Your task to perform on an android device: turn on improve location accuracy Image 0: 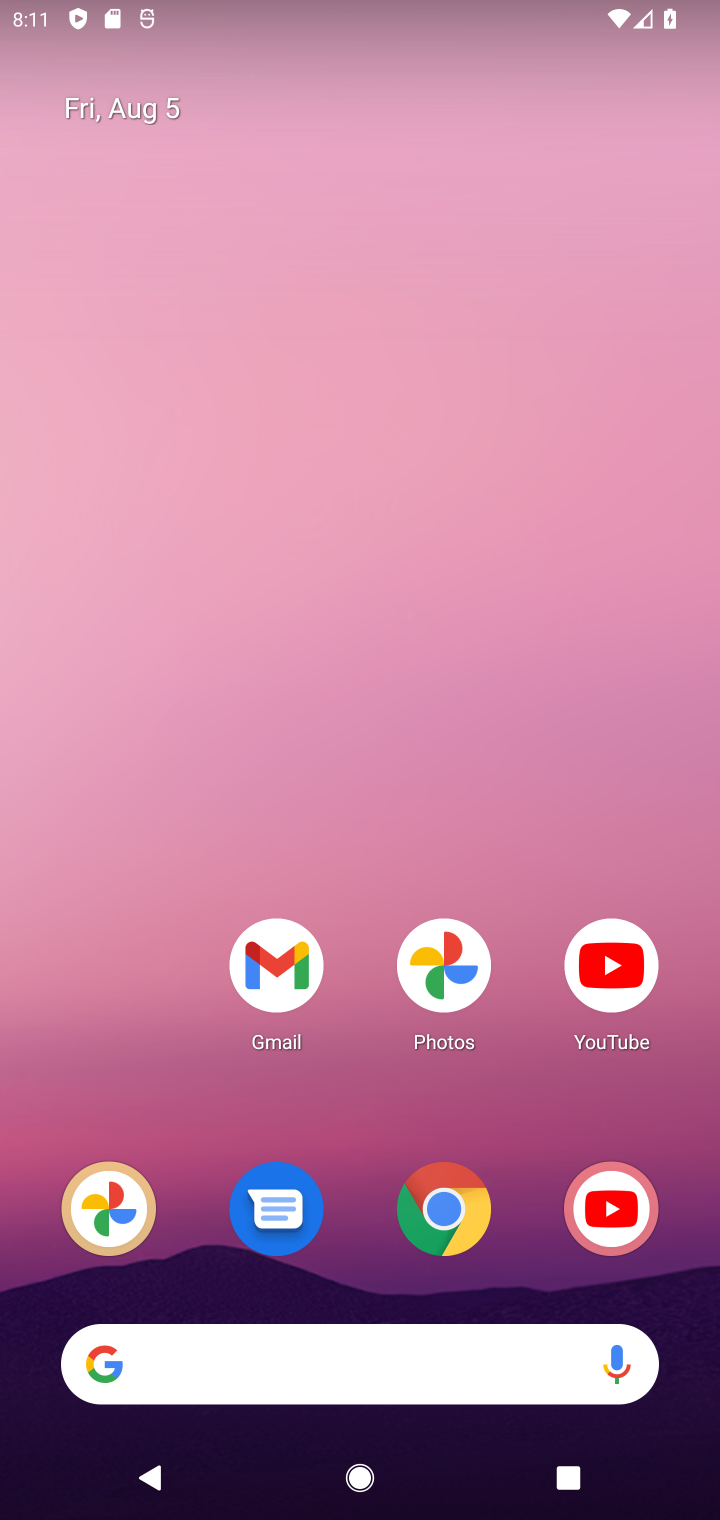
Step 0: drag from (360, 1372) to (520, 459)
Your task to perform on an android device: turn on improve location accuracy Image 1: 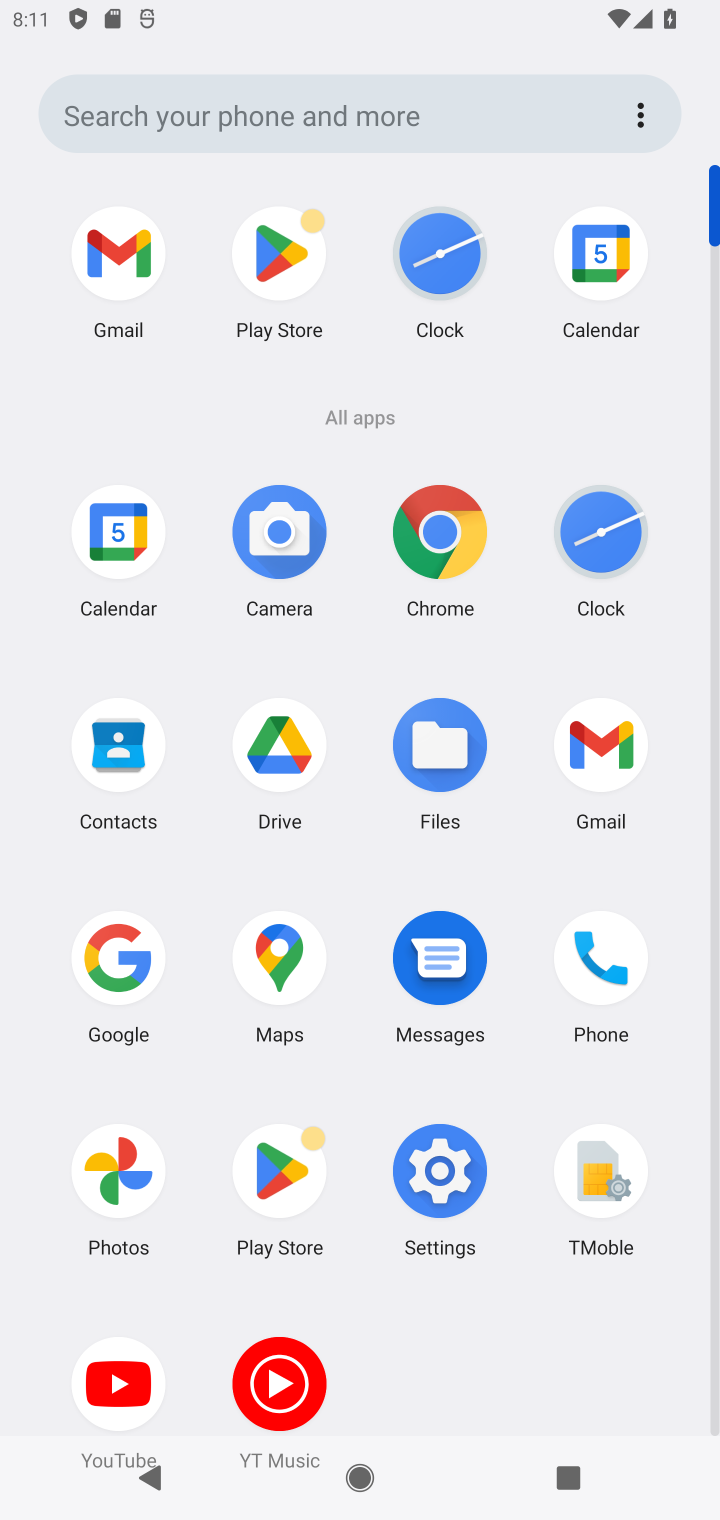
Step 1: click (441, 1175)
Your task to perform on an android device: turn on improve location accuracy Image 2: 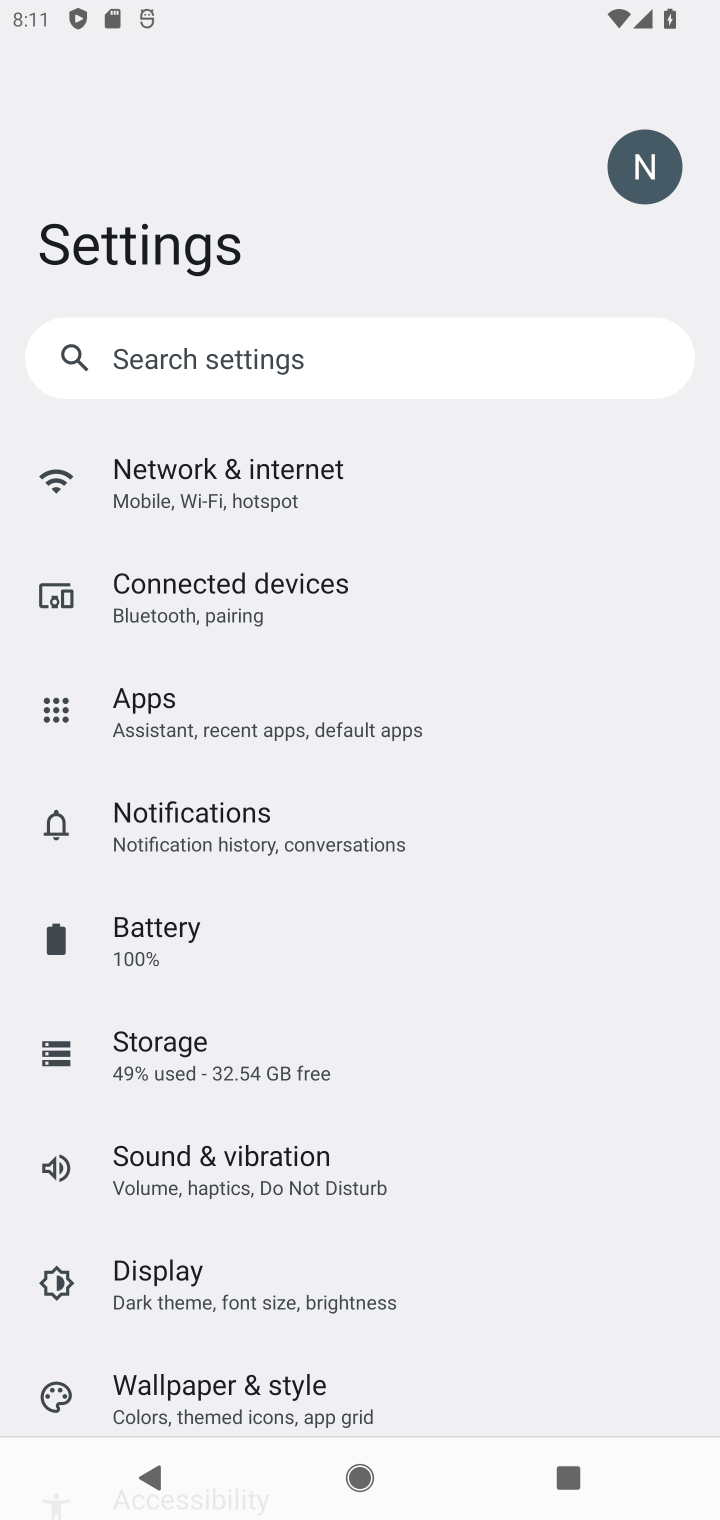
Step 2: drag from (458, 1318) to (613, 647)
Your task to perform on an android device: turn on improve location accuracy Image 3: 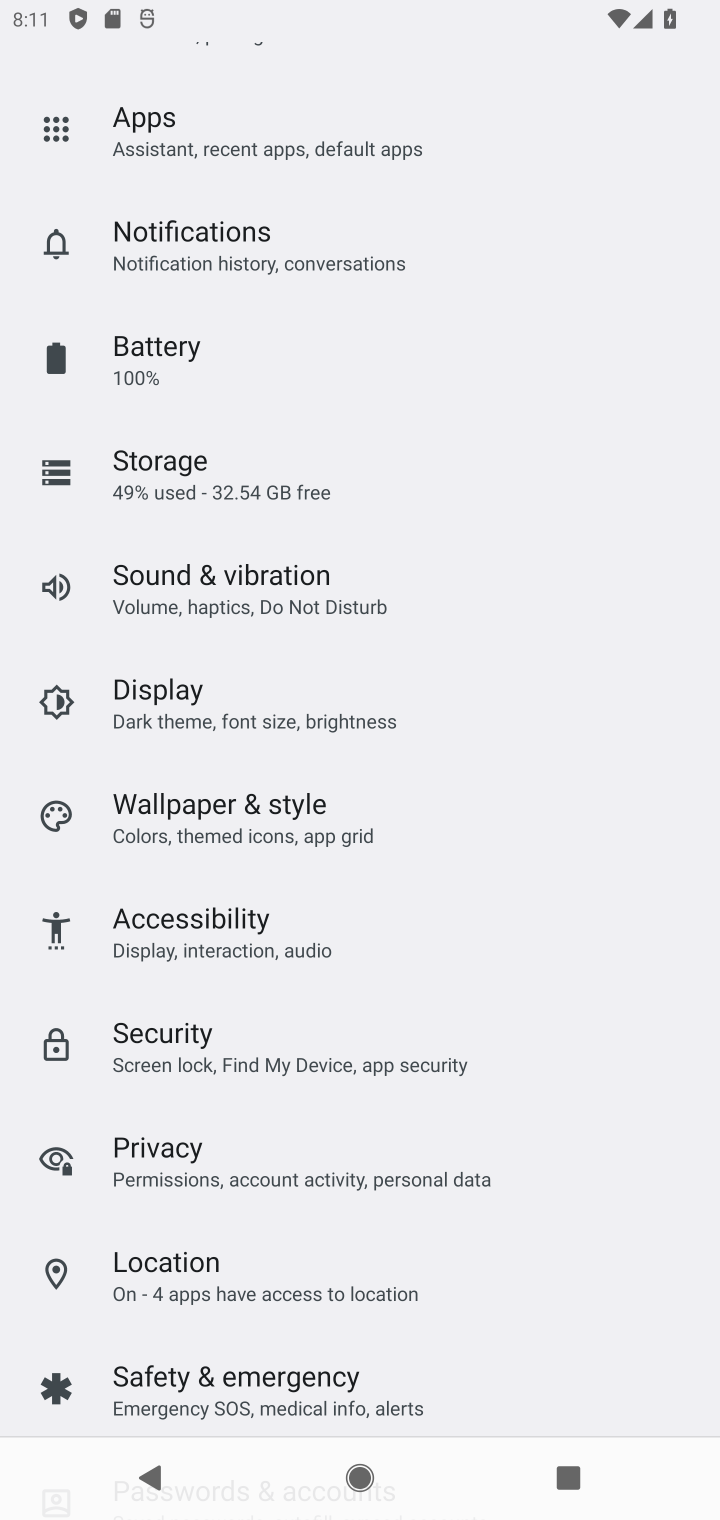
Step 3: click (202, 1277)
Your task to perform on an android device: turn on improve location accuracy Image 4: 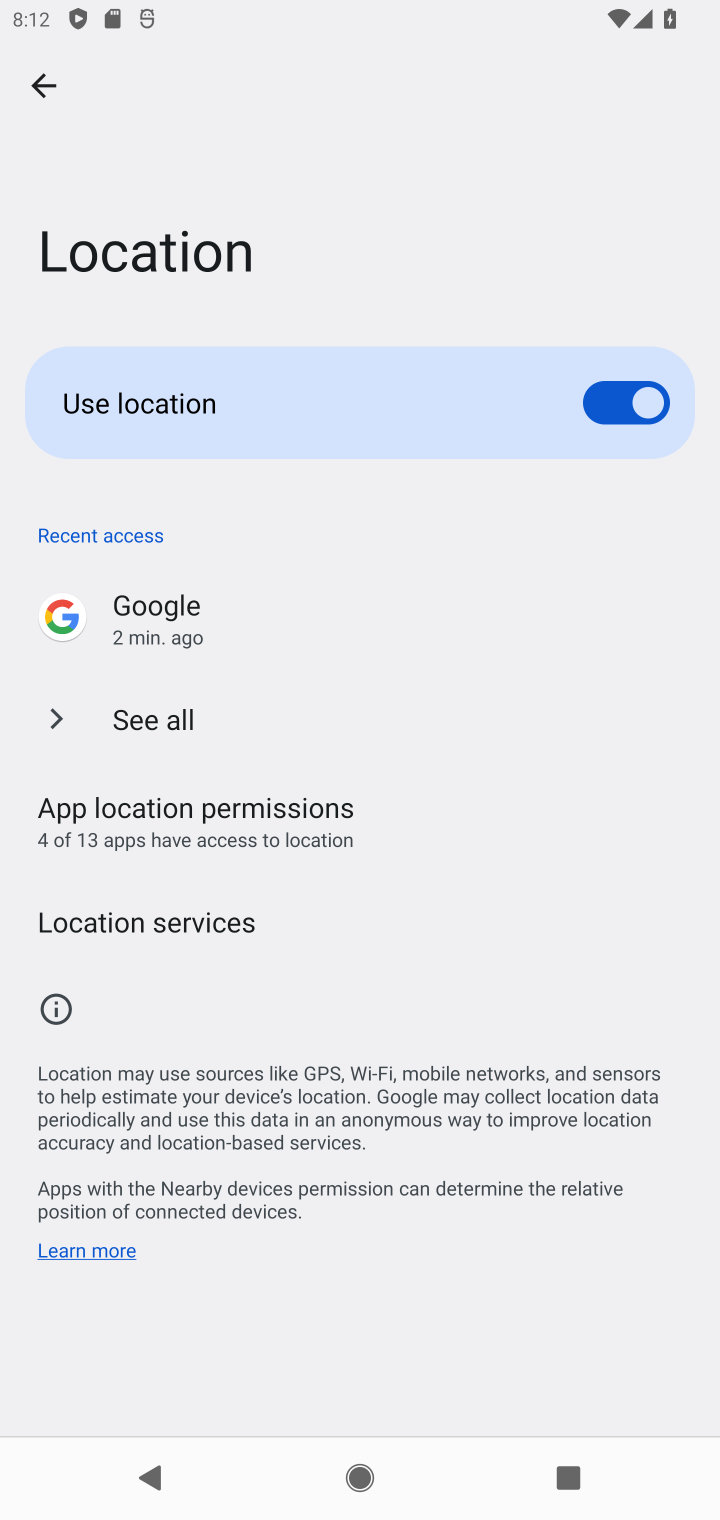
Step 4: click (199, 921)
Your task to perform on an android device: turn on improve location accuracy Image 5: 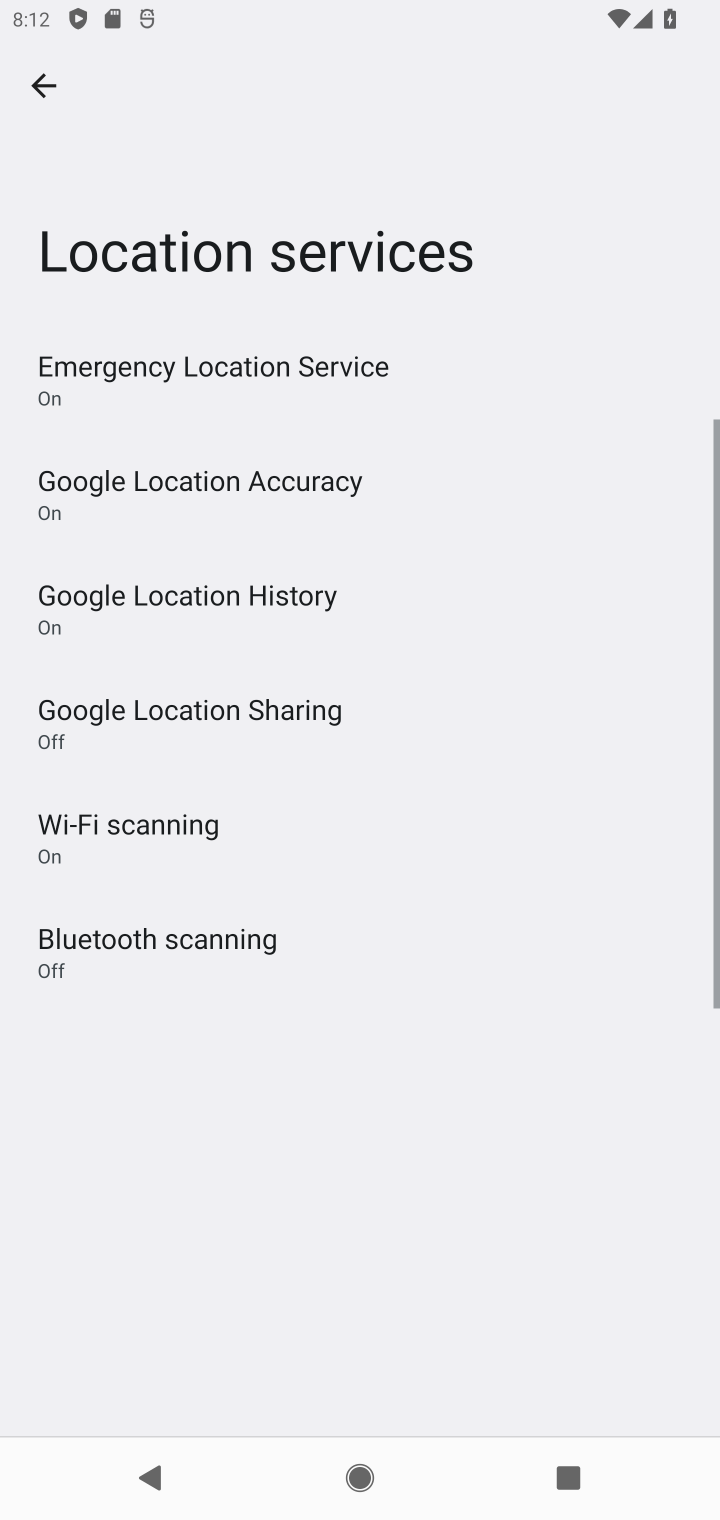
Step 5: click (270, 478)
Your task to perform on an android device: turn on improve location accuracy Image 6: 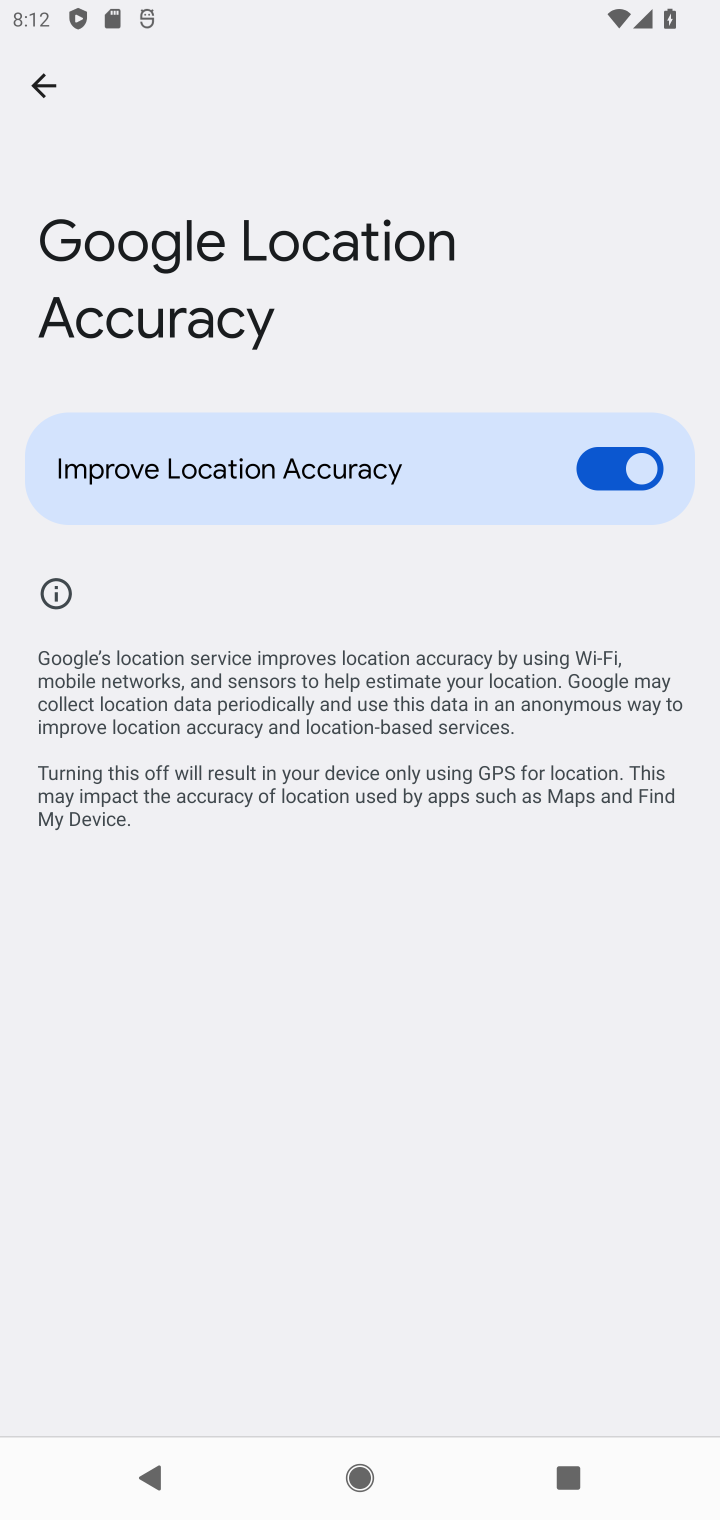
Step 6: task complete